Your task to perform on an android device: change keyboard looks Image 0: 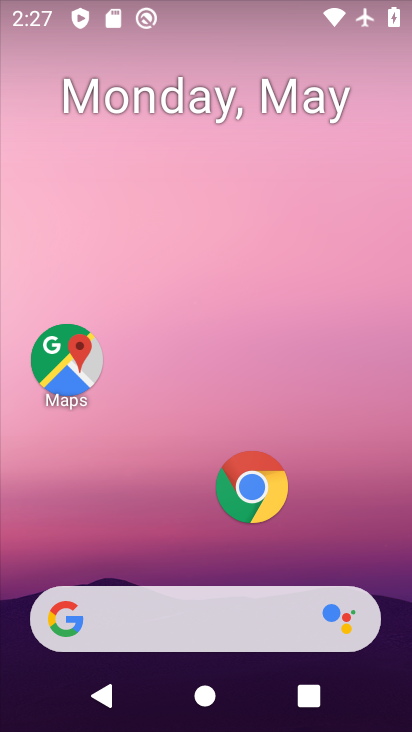
Step 0: drag from (191, 465) to (212, 110)
Your task to perform on an android device: change keyboard looks Image 1: 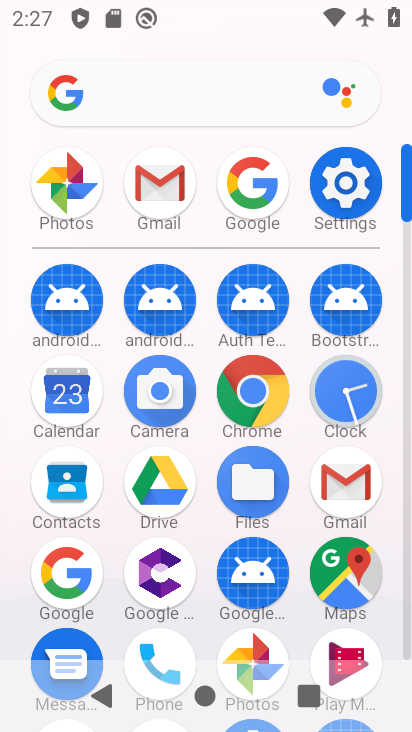
Step 1: click (345, 178)
Your task to perform on an android device: change keyboard looks Image 2: 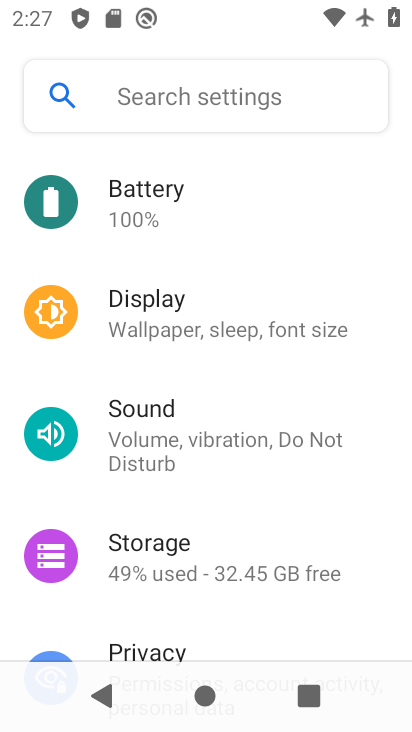
Step 2: drag from (181, 555) to (245, 288)
Your task to perform on an android device: change keyboard looks Image 3: 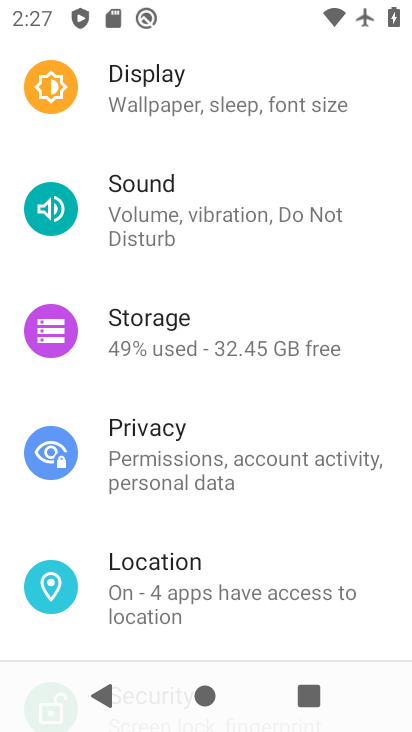
Step 3: drag from (197, 564) to (210, 277)
Your task to perform on an android device: change keyboard looks Image 4: 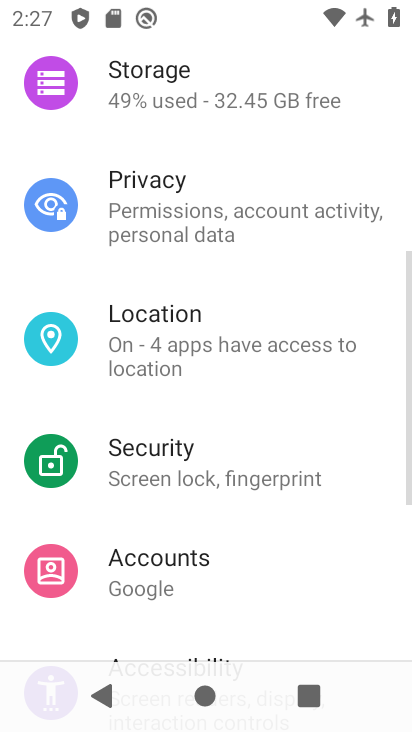
Step 4: drag from (245, 606) to (248, 264)
Your task to perform on an android device: change keyboard looks Image 5: 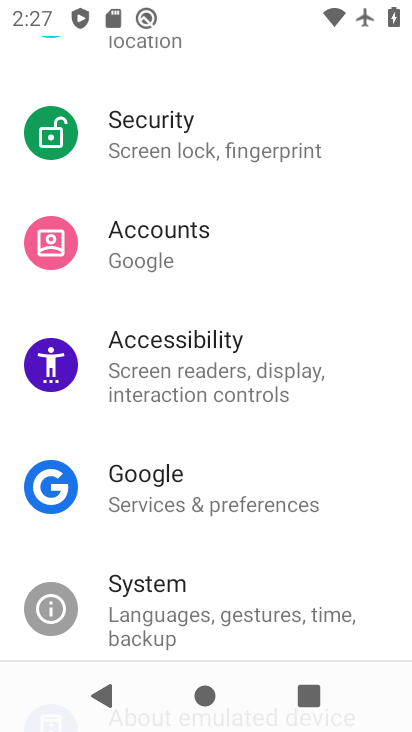
Step 5: click (257, 624)
Your task to perform on an android device: change keyboard looks Image 6: 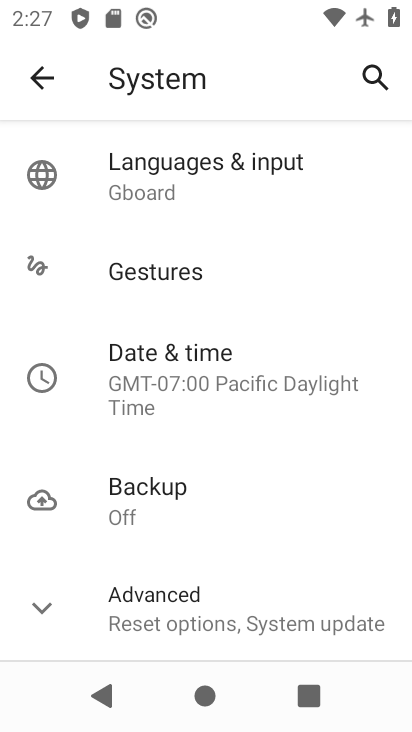
Step 6: click (185, 178)
Your task to perform on an android device: change keyboard looks Image 7: 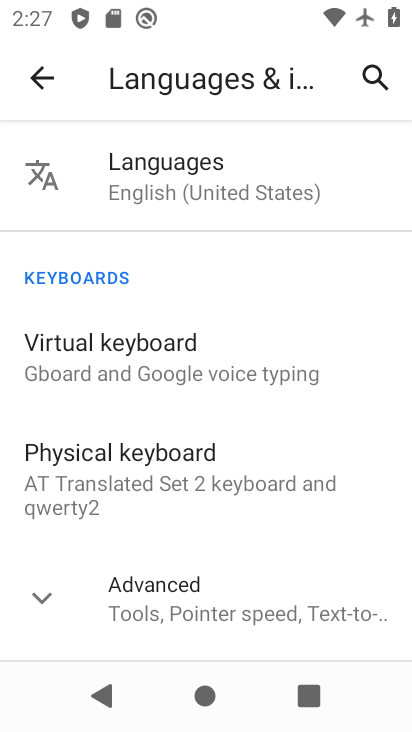
Step 7: click (194, 366)
Your task to perform on an android device: change keyboard looks Image 8: 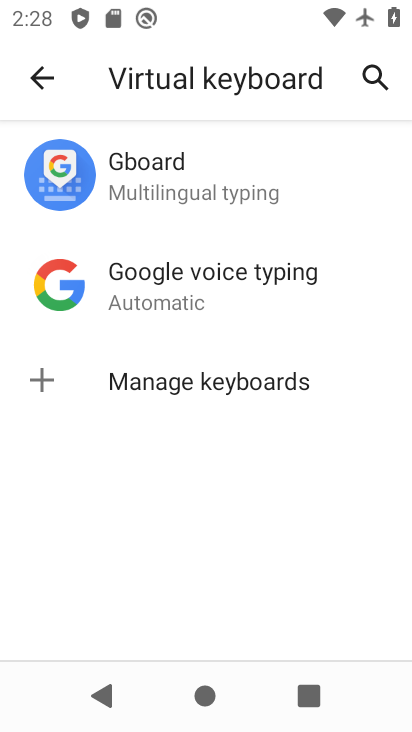
Step 8: click (179, 194)
Your task to perform on an android device: change keyboard looks Image 9: 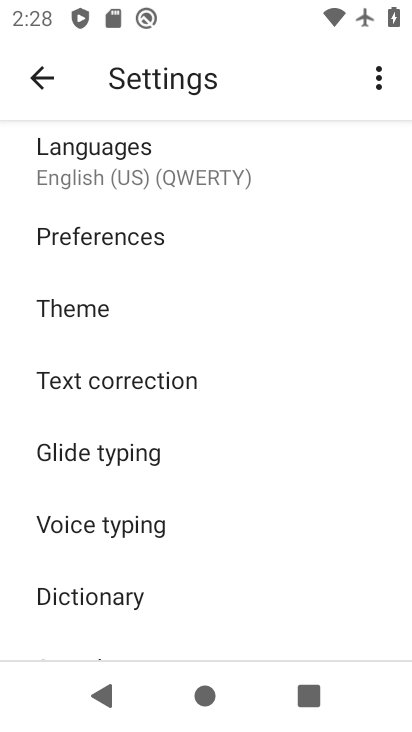
Step 9: click (80, 321)
Your task to perform on an android device: change keyboard looks Image 10: 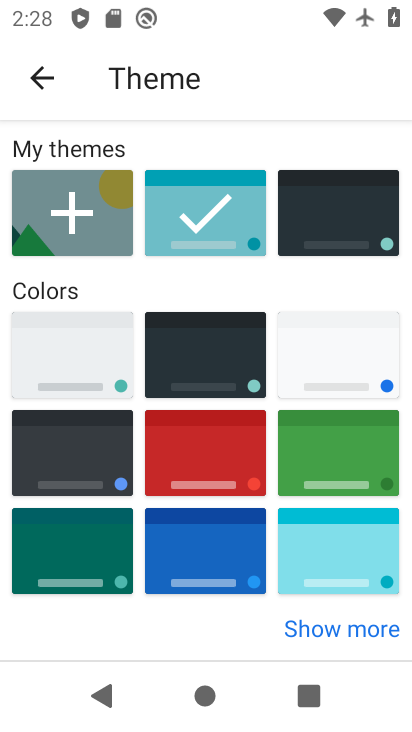
Step 10: click (43, 555)
Your task to perform on an android device: change keyboard looks Image 11: 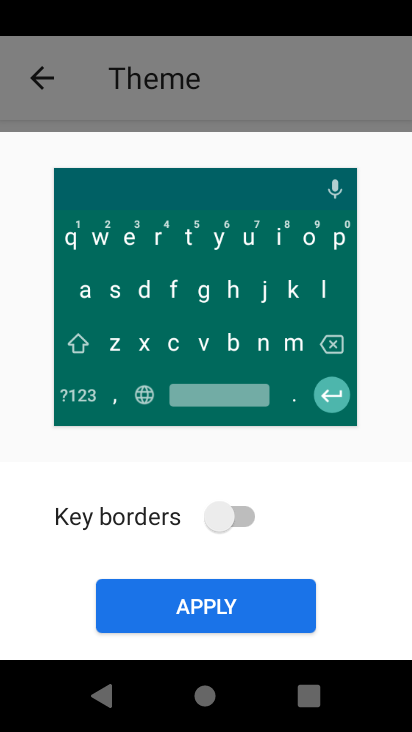
Step 11: click (142, 596)
Your task to perform on an android device: change keyboard looks Image 12: 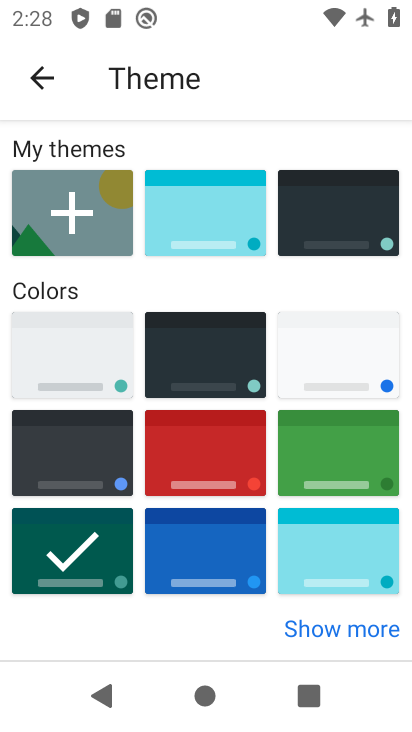
Step 12: task complete